Your task to perform on an android device: Search for pizza restaurants on Maps Image 0: 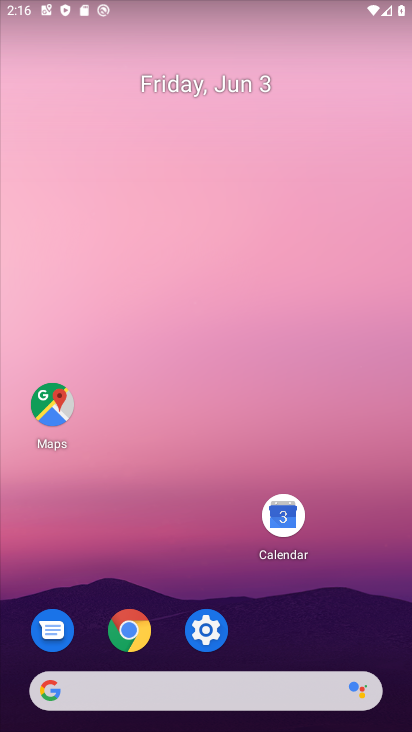
Step 0: drag from (218, 702) to (232, 298)
Your task to perform on an android device: Search for pizza restaurants on Maps Image 1: 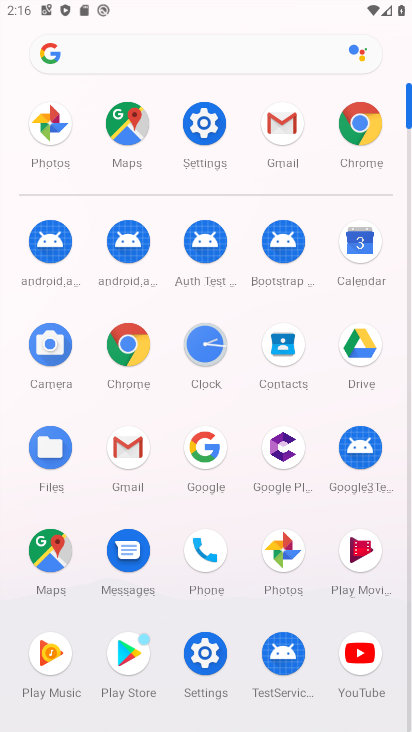
Step 1: click (115, 126)
Your task to perform on an android device: Search for pizza restaurants on Maps Image 2: 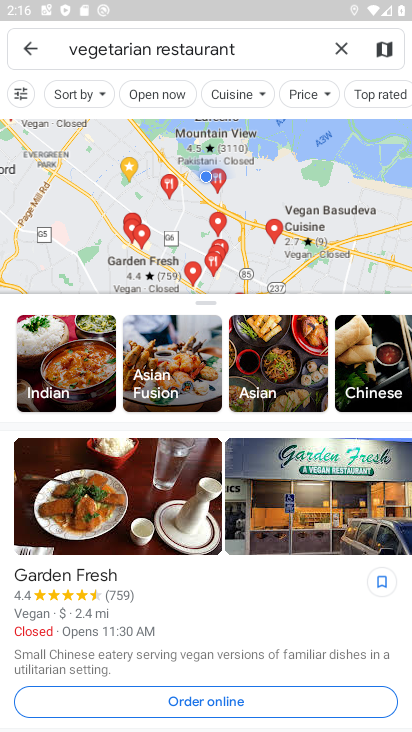
Step 2: click (345, 56)
Your task to perform on an android device: Search for pizza restaurants on Maps Image 3: 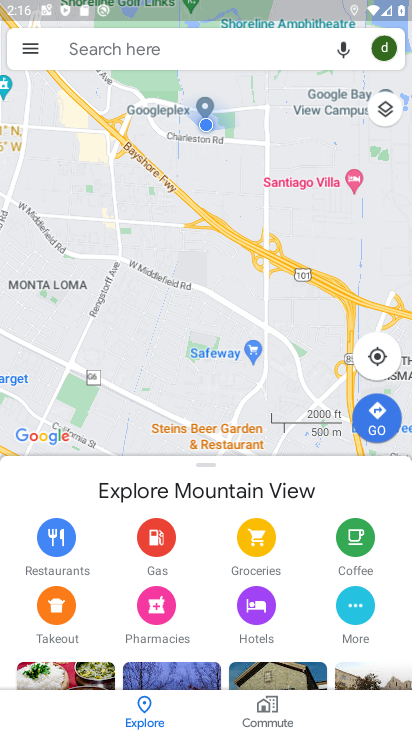
Step 3: click (125, 52)
Your task to perform on an android device: Search for pizza restaurants on Maps Image 4: 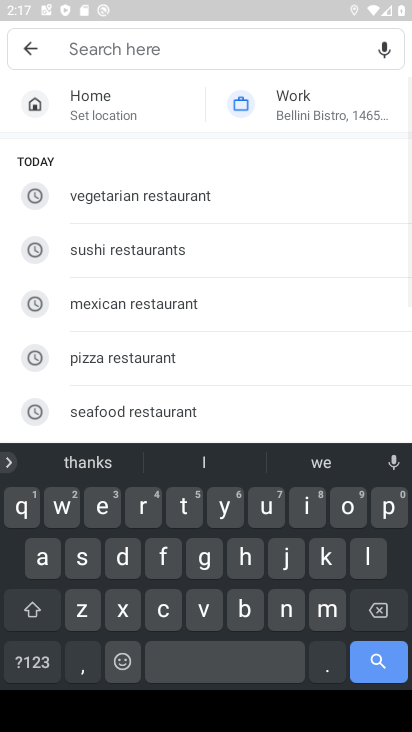
Step 4: click (156, 363)
Your task to perform on an android device: Search for pizza restaurants on Maps Image 5: 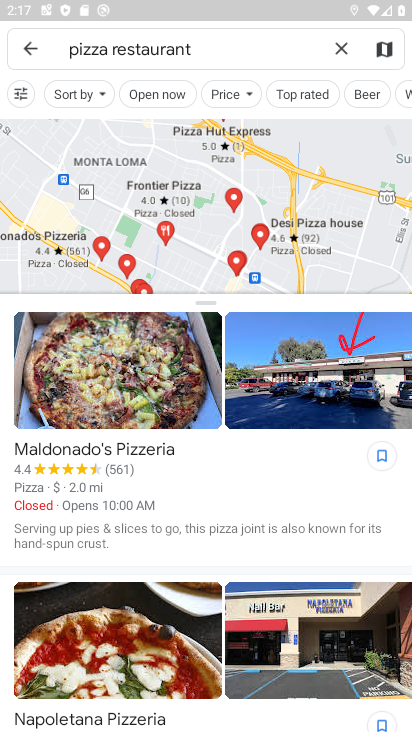
Step 5: task complete